Your task to perform on an android device: turn off priority inbox in the gmail app Image 0: 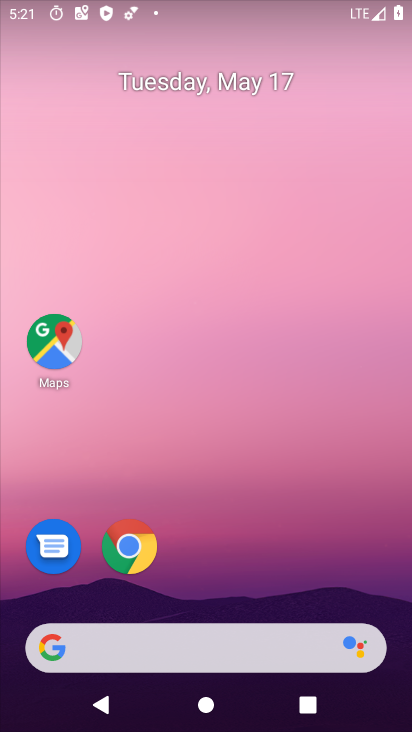
Step 0: drag from (210, 591) to (186, 152)
Your task to perform on an android device: turn off priority inbox in the gmail app Image 1: 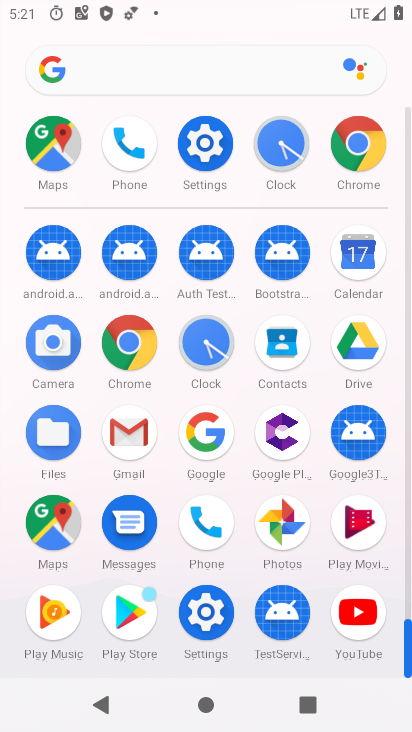
Step 1: click (127, 433)
Your task to perform on an android device: turn off priority inbox in the gmail app Image 2: 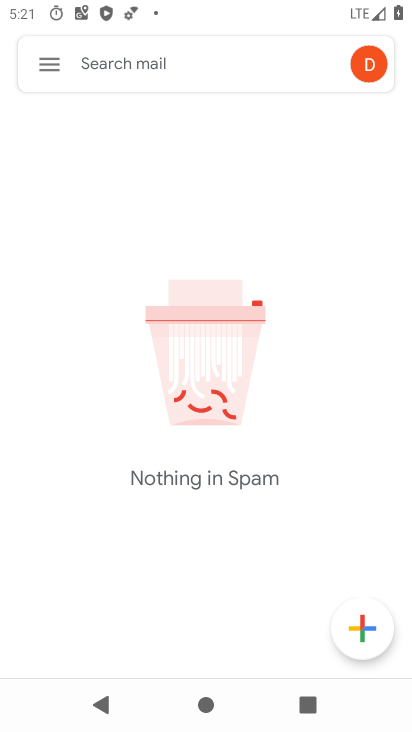
Step 2: click (46, 63)
Your task to perform on an android device: turn off priority inbox in the gmail app Image 3: 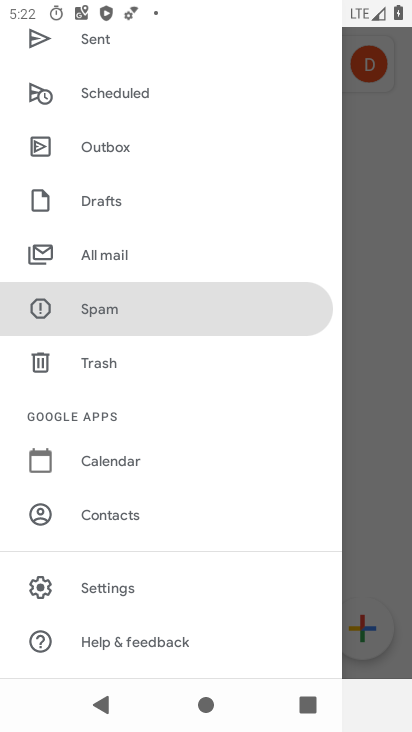
Step 3: click (118, 587)
Your task to perform on an android device: turn off priority inbox in the gmail app Image 4: 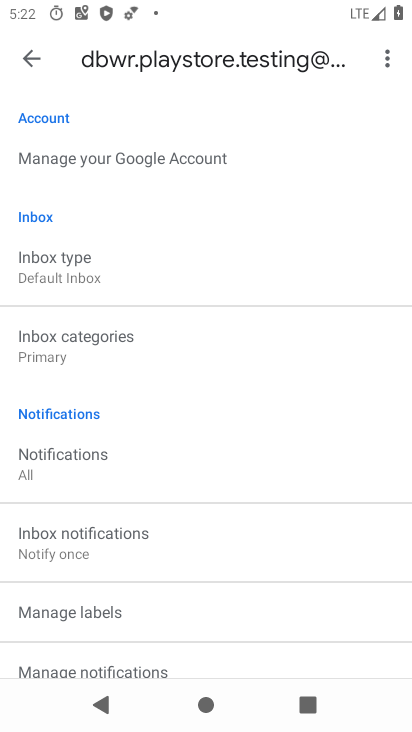
Step 4: click (71, 279)
Your task to perform on an android device: turn off priority inbox in the gmail app Image 5: 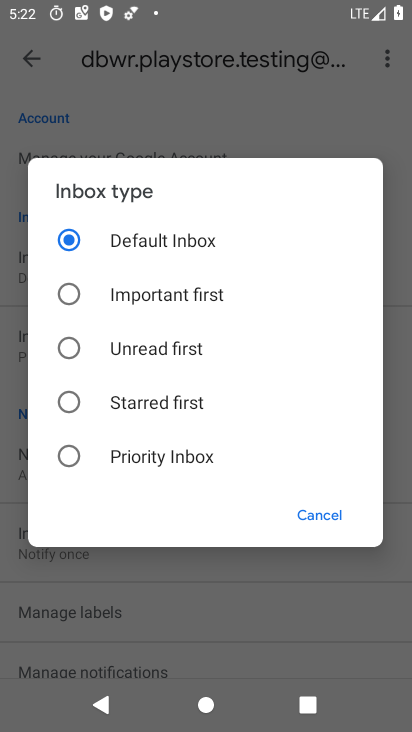
Step 5: task complete